Your task to perform on an android device: turn off location Image 0: 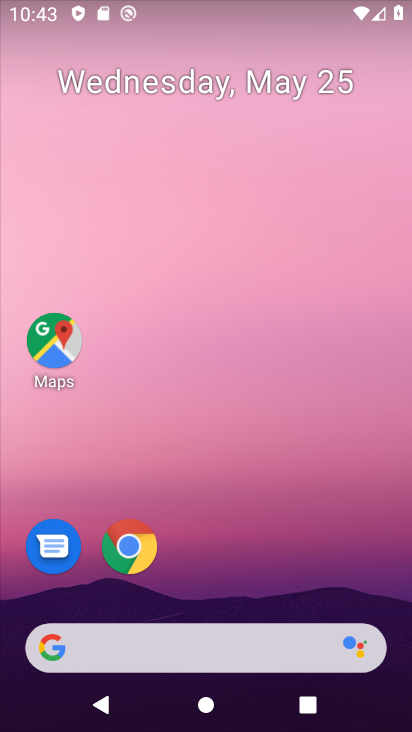
Step 0: drag from (185, 602) to (264, 90)
Your task to perform on an android device: turn off location Image 1: 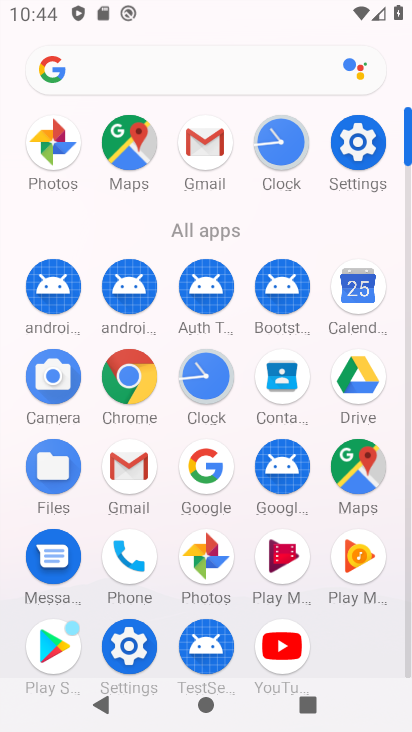
Step 1: drag from (170, 590) to (235, 383)
Your task to perform on an android device: turn off location Image 2: 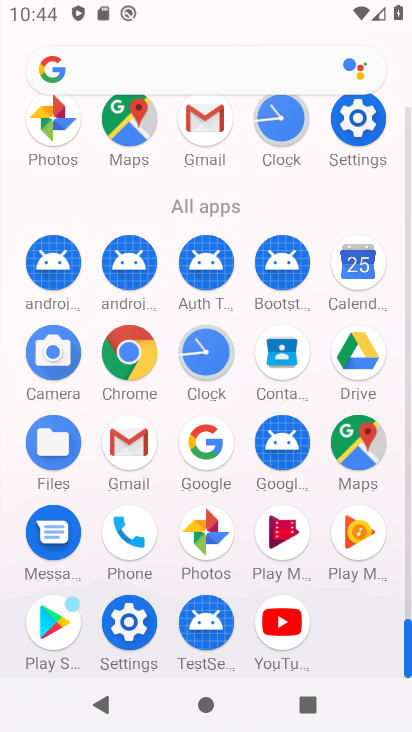
Step 2: click (134, 638)
Your task to perform on an android device: turn off location Image 3: 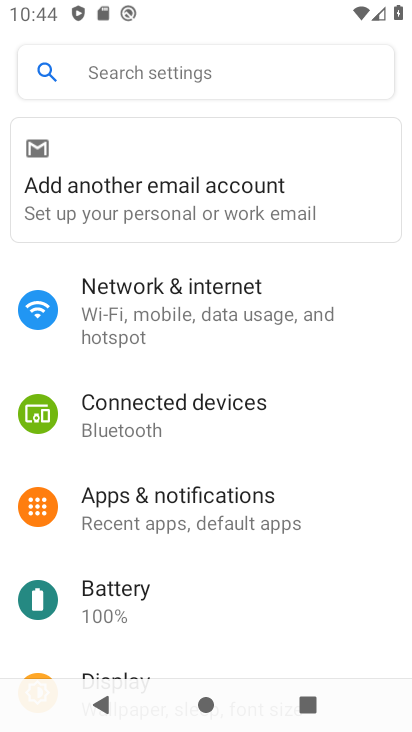
Step 3: drag from (146, 600) to (272, 175)
Your task to perform on an android device: turn off location Image 4: 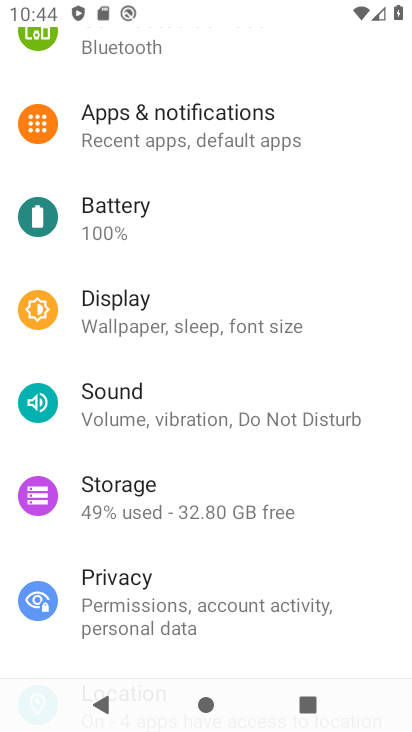
Step 4: drag from (221, 644) to (293, 267)
Your task to perform on an android device: turn off location Image 5: 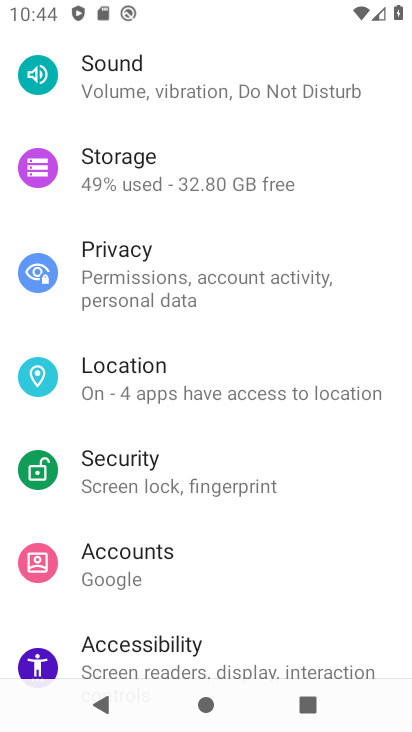
Step 5: drag from (225, 183) to (223, 276)
Your task to perform on an android device: turn off location Image 6: 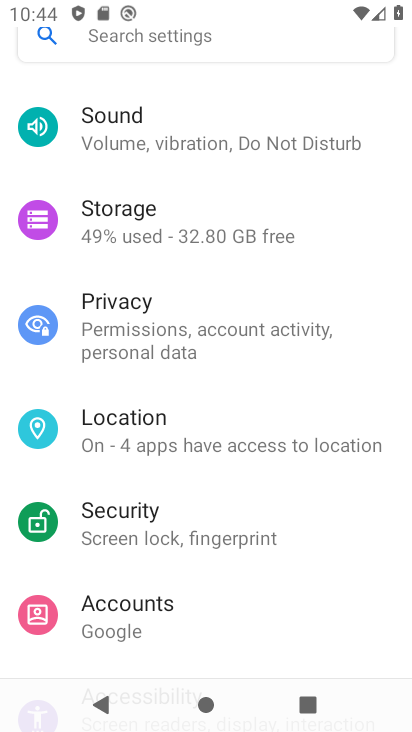
Step 6: click (121, 439)
Your task to perform on an android device: turn off location Image 7: 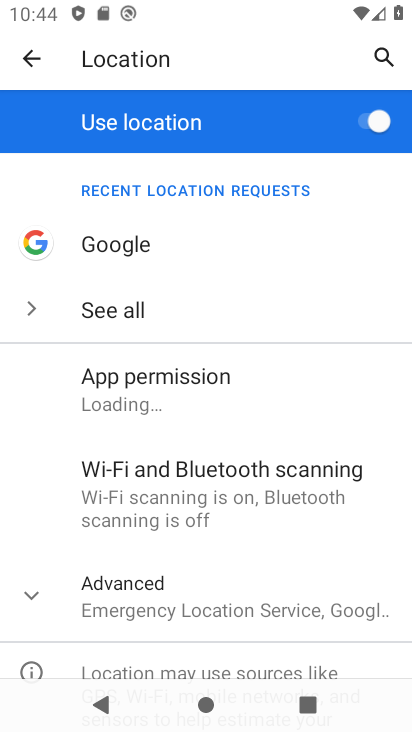
Step 7: click (356, 118)
Your task to perform on an android device: turn off location Image 8: 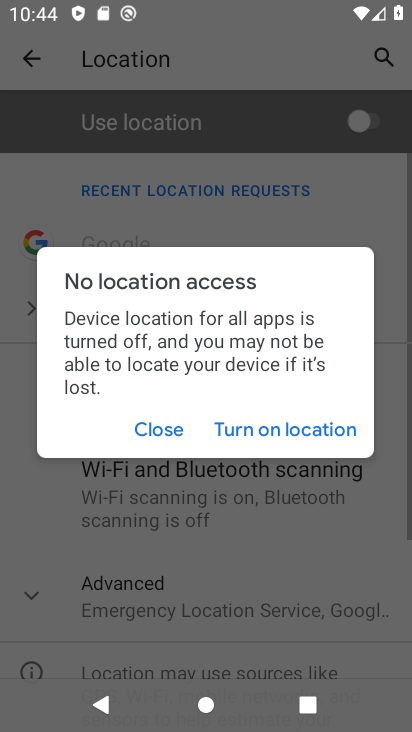
Step 8: task complete